Your task to perform on an android device: Open Google Chrome and open the bookmarks view Image 0: 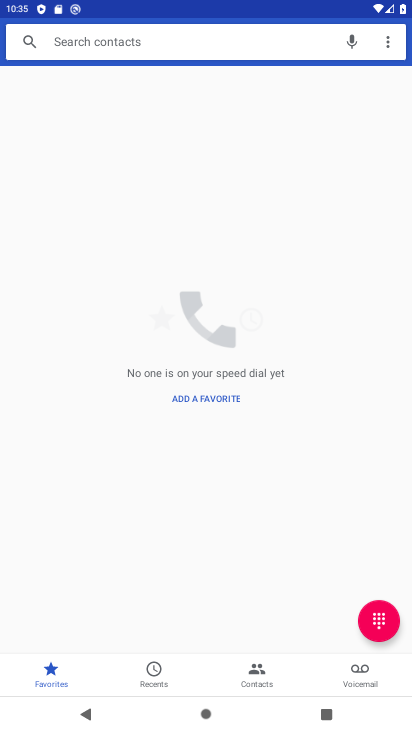
Step 0: press home button
Your task to perform on an android device: Open Google Chrome and open the bookmarks view Image 1: 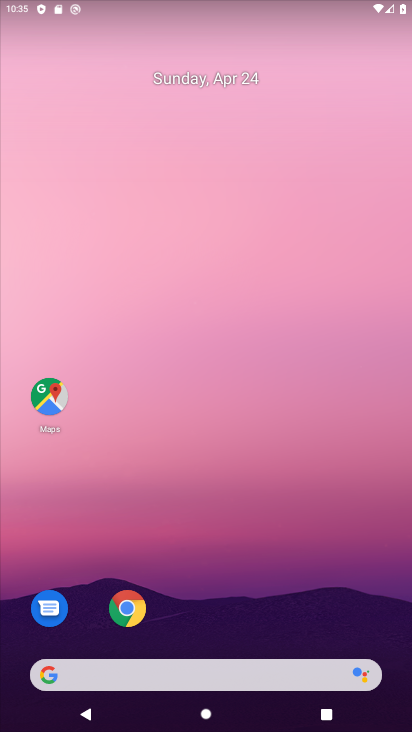
Step 1: click (123, 606)
Your task to perform on an android device: Open Google Chrome and open the bookmarks view Image 2: 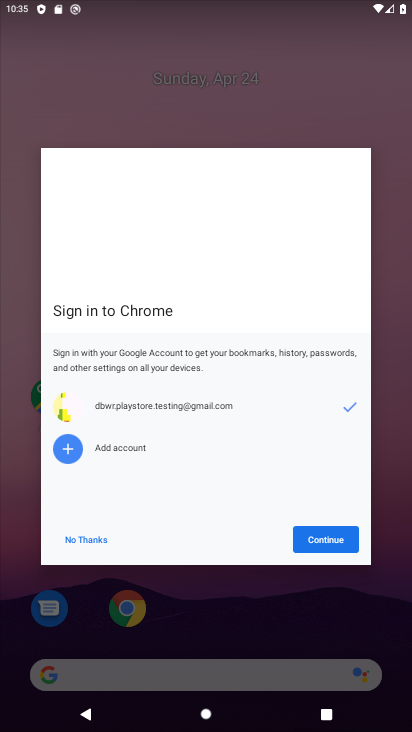
Step 2: click (329, 541)
Your task to perform on an android device: Open Google Chrome and open the bookmarks view Image 3: 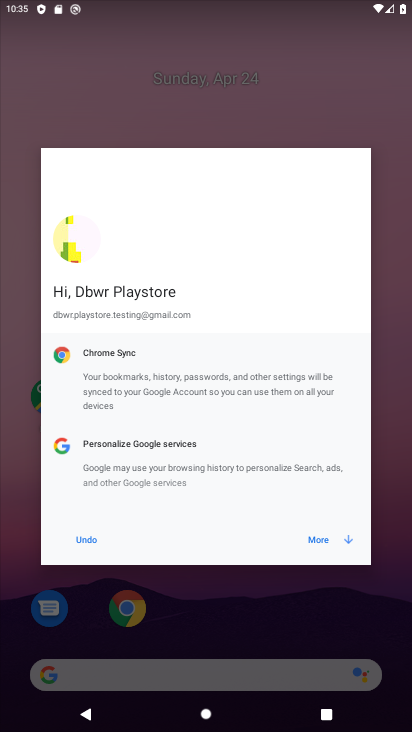
Step 3: click (325, 541)
Your task to perform on an android device: Open Google Chrome and open the bookmarks view Image 4: 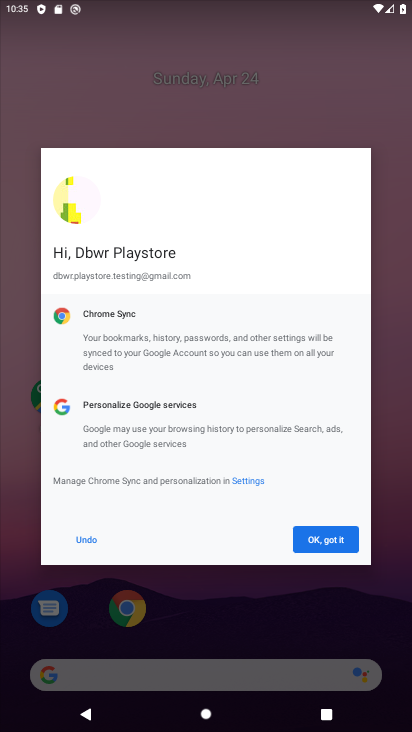
Step 4: click (325, 541)
Your task to perform on an android device: Open Google Chrome and open the bookmarks view Image 5: 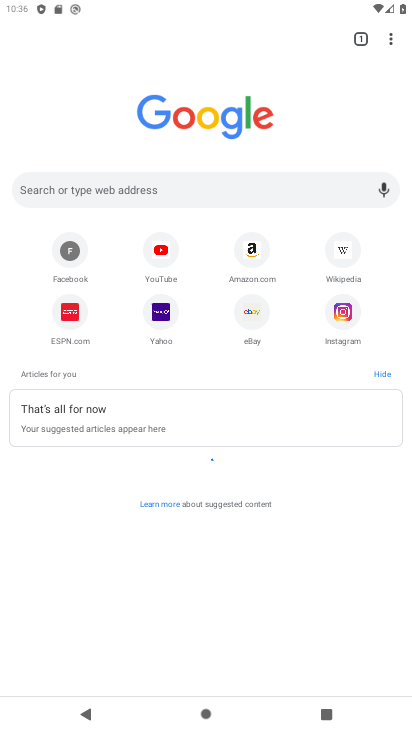
Step 5: click (390, 40)
Your task to perform on an android device: Open Google Chrome and open the bookmarks view Image 6: 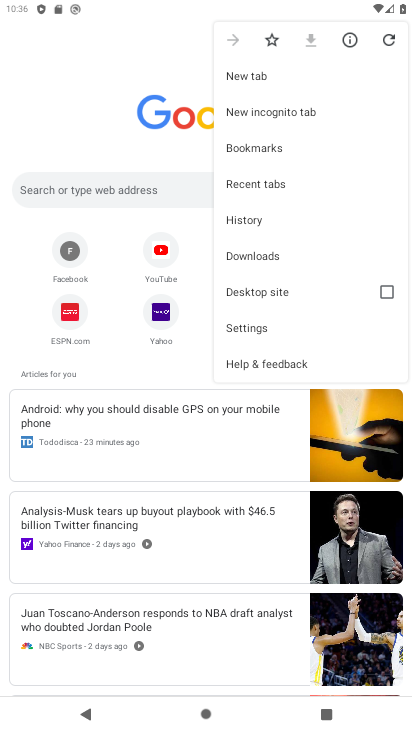
Step 6: click (245, 145)
Your task to perform on an android device: Open Google Chrome and open the bookmarks view Image 7: 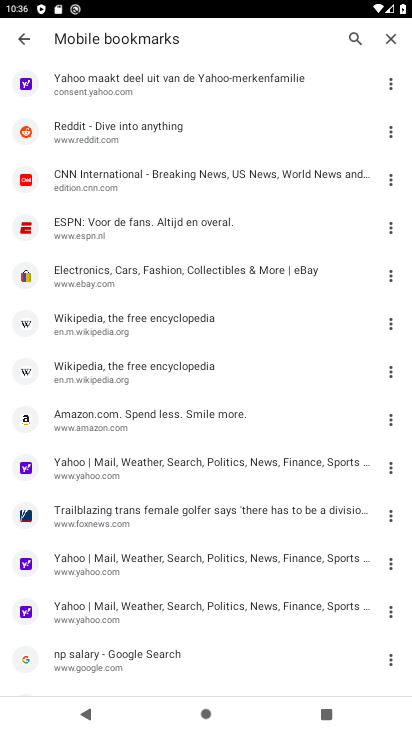
Step 7: task complete